Your task to perform on an android device: When is my next appointment? Image 0: 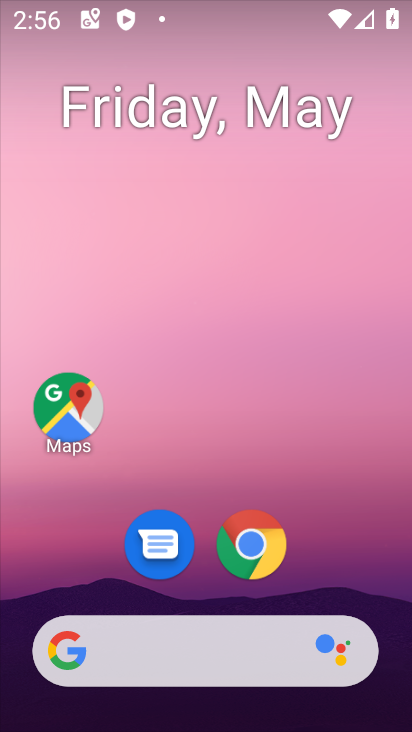
Step 0: drag from (200, 595) to (180, 153)
Your task to perform on an android device: When is my next appointment? Image 1: 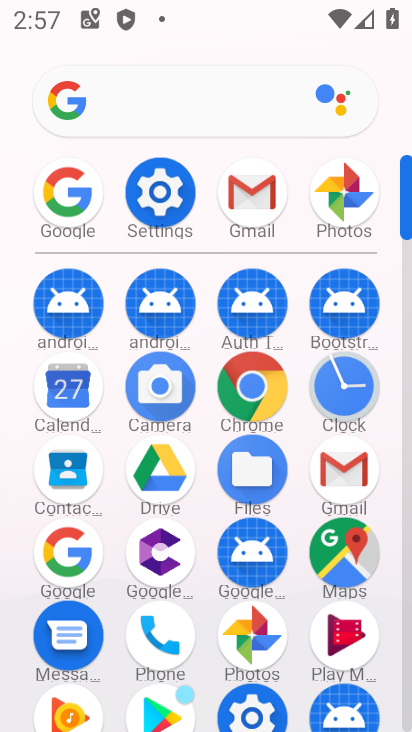
Step 1: click (75, 399)
Your task to perform on an android device: When is my next appointment? Image 2: 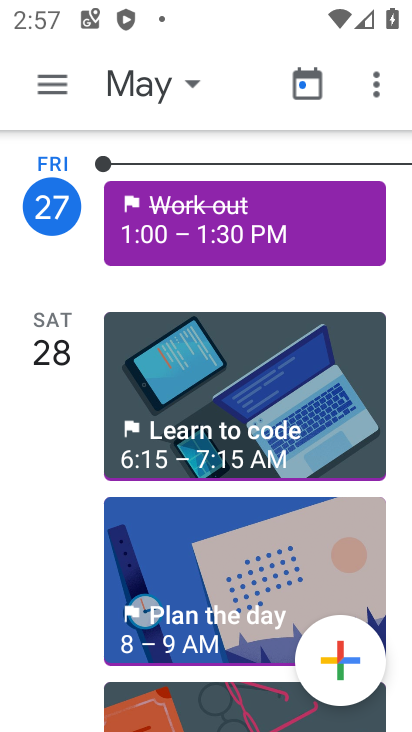
Step 2: click (181, 81)
Your task to perform on an android device: When is my next appointment? Image 3: 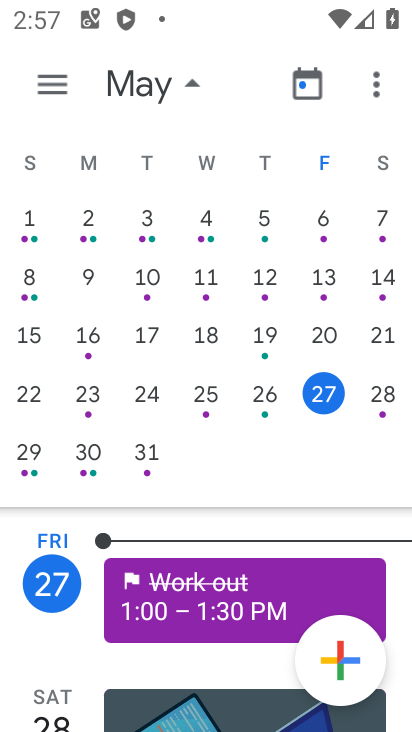
Step 3: task complete